Your task to perform on an android device: change the upload size in google photos Image 0: 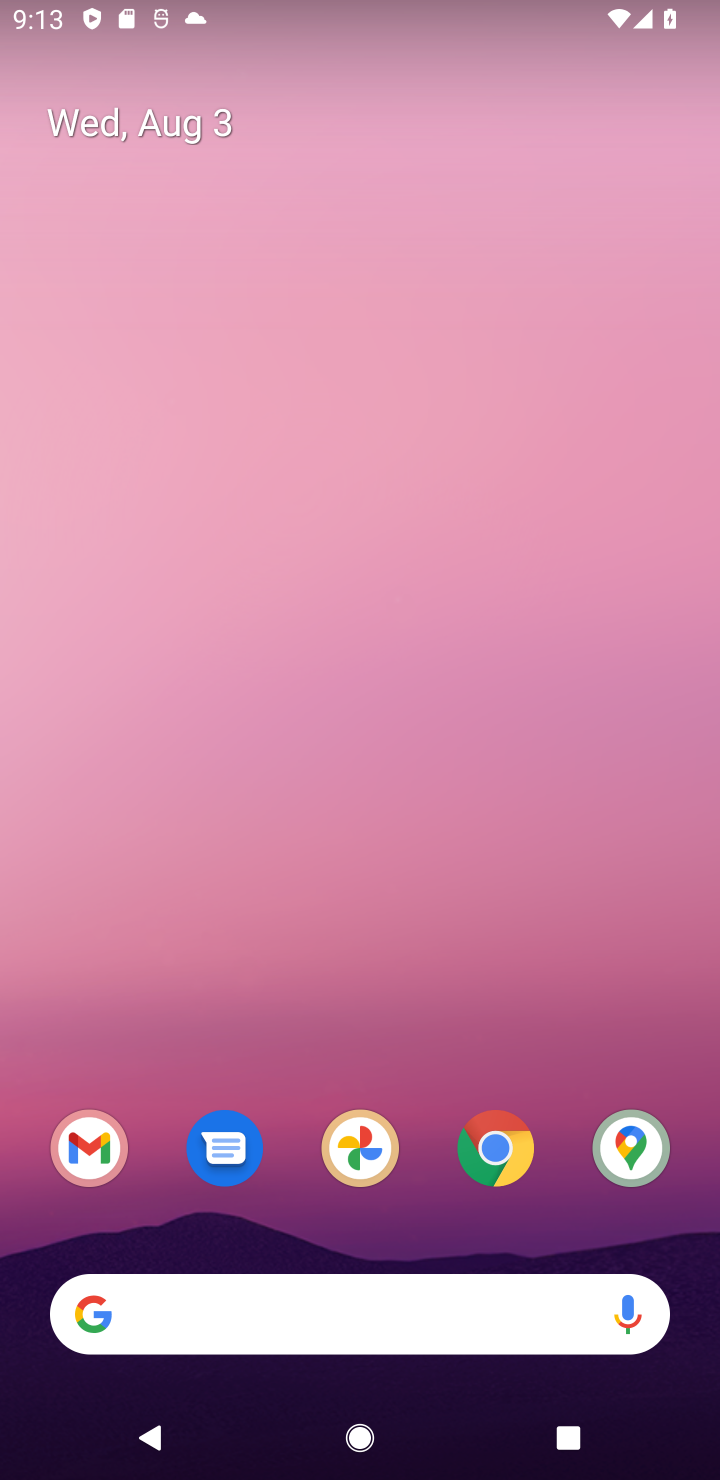
Step 0: drag from (431, 835) to (425, 572)
Your task to perform on an android device: change the upload size in google photos Image 1: 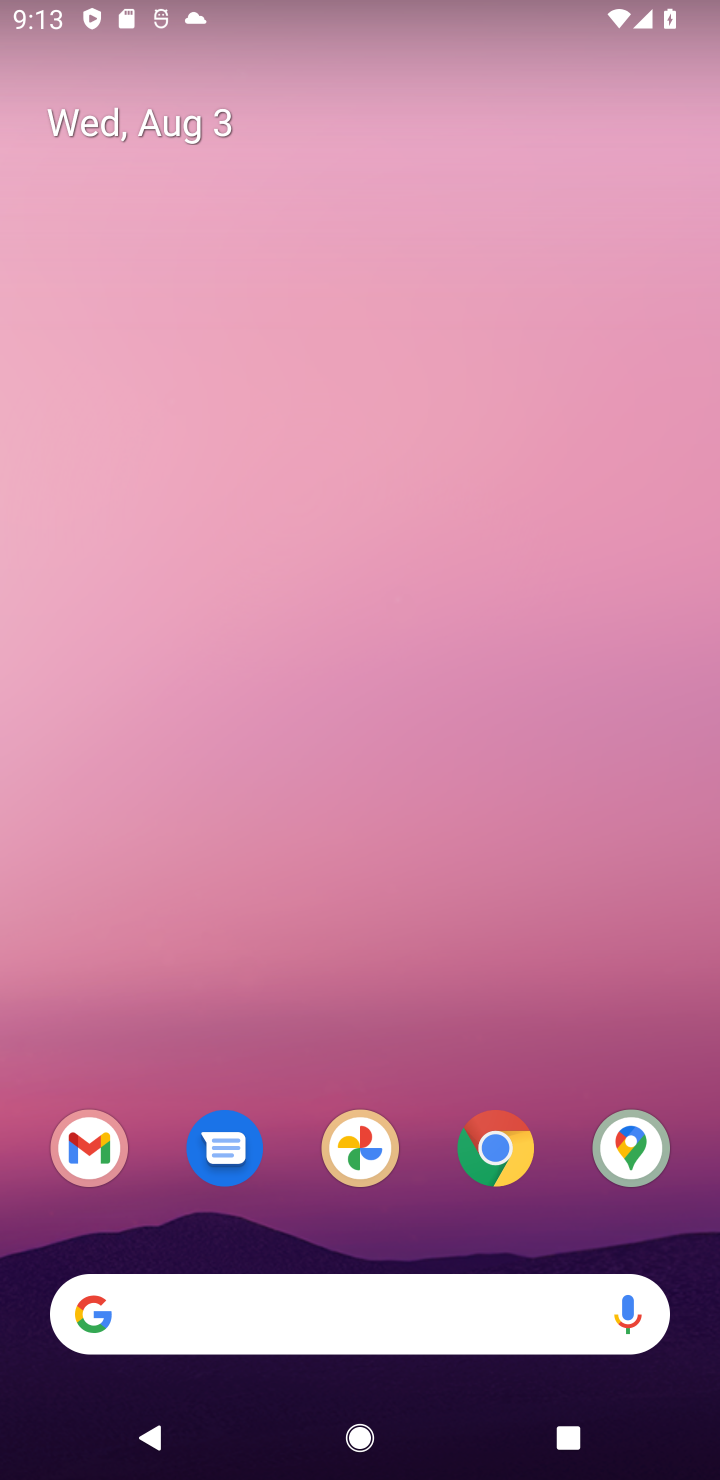
Step 1: drag from (434, 858) to (466, 137)
Your task to perform on an android device: change the upload size in google photos Image 2: 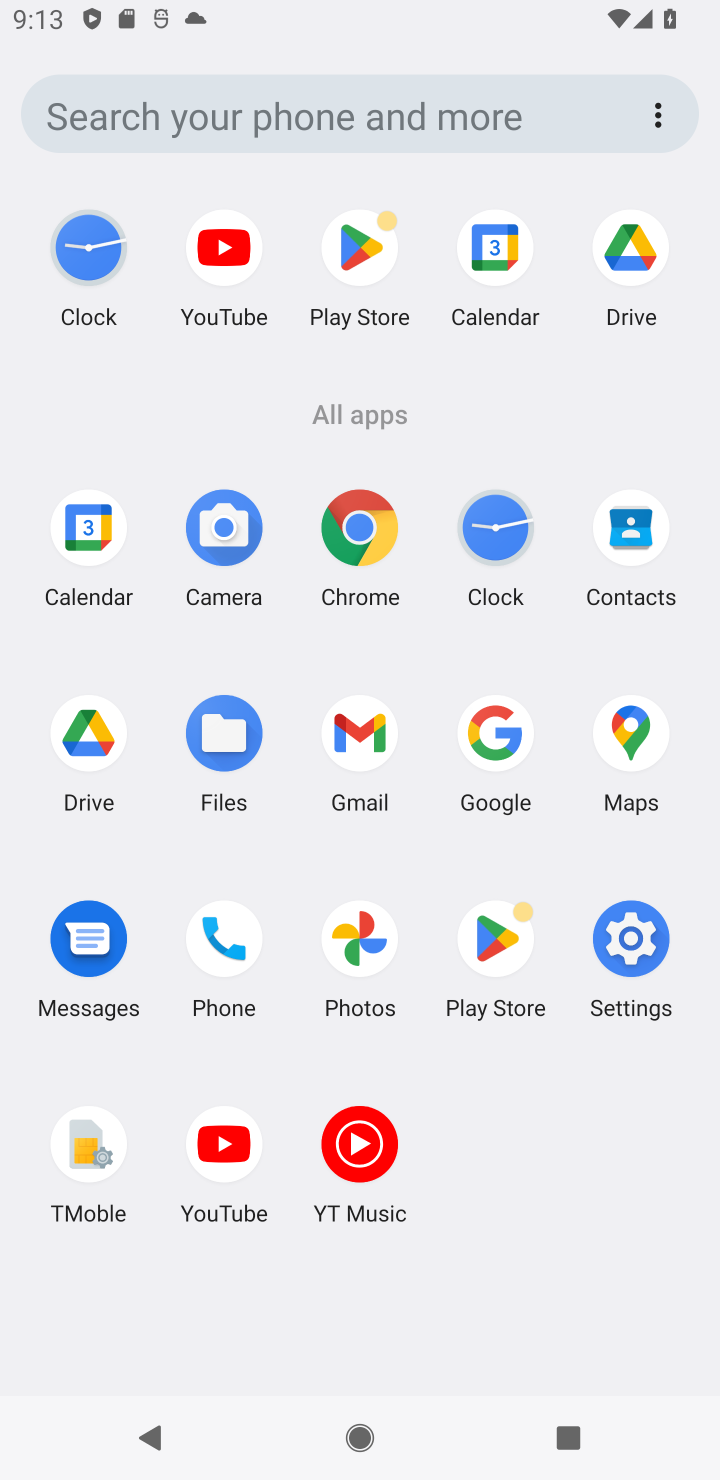
Step 2: click (321, 1020)
Your task to perform on an android device: change the upload size in google photos Image 3: 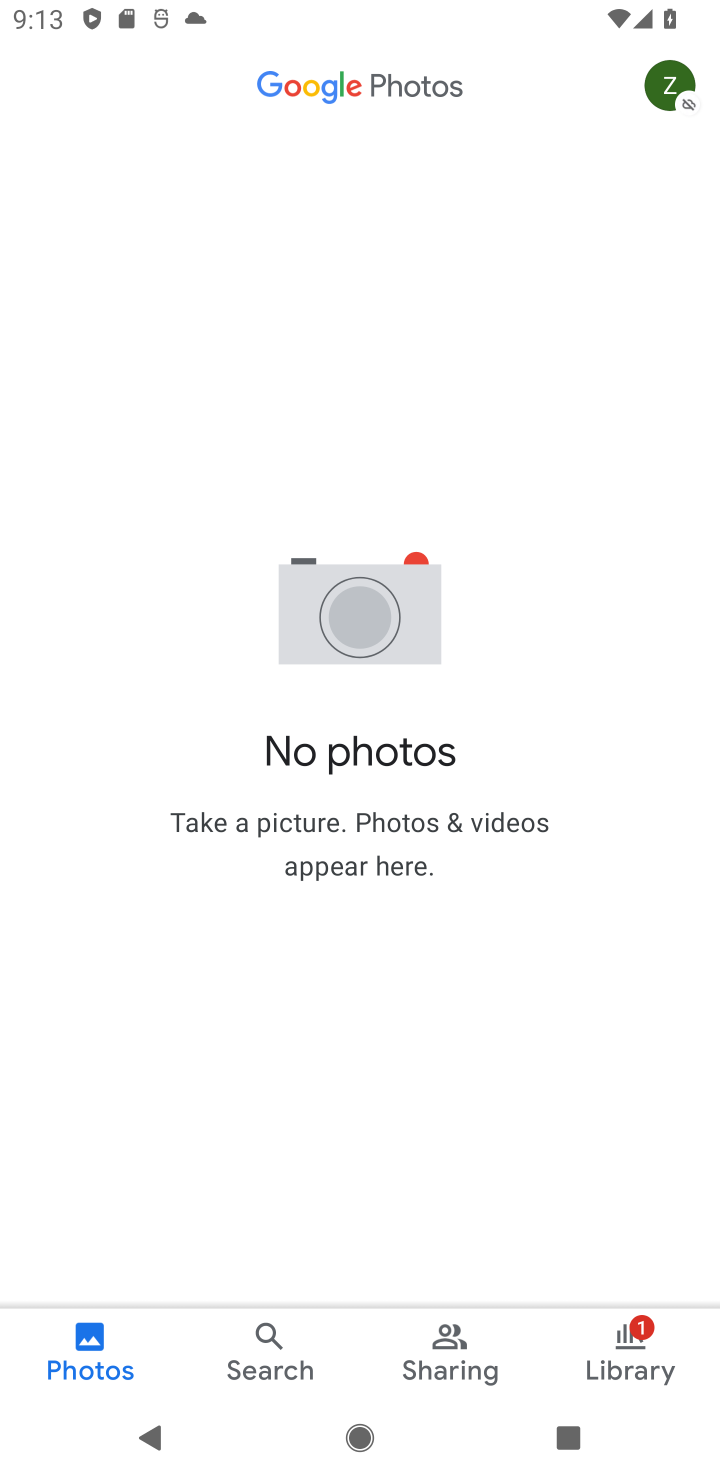
Step 3: task complete